Your task to perform on an android device: Open notification settings Image 0: 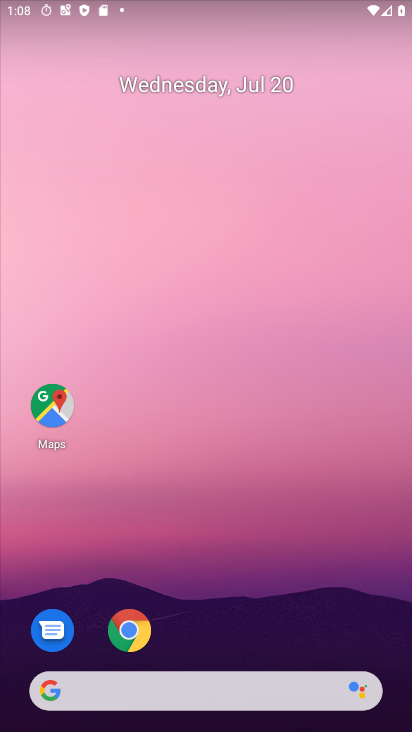
Step 0: drag from (237, 620) to (193, 175)
Your task to perform on an android device: Open notification settings Image 1: 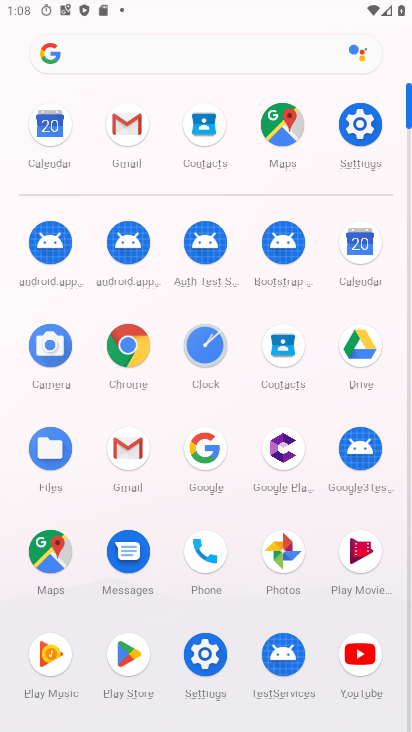
Step 1: click (356, 126)
Your task to perform on an android device: Open notification settings Image 2: 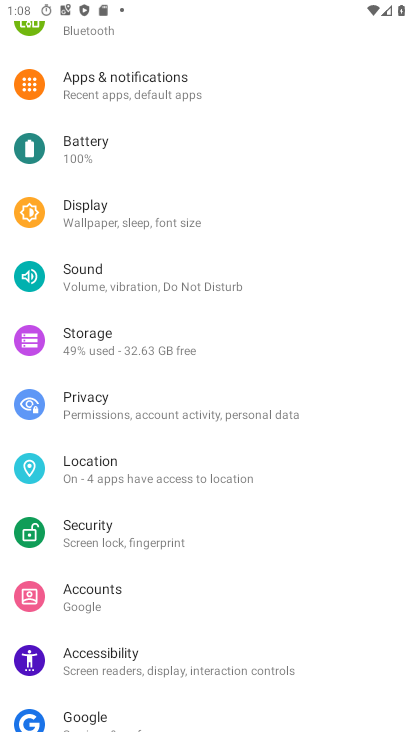
Step 2: click (165, 94)
Your task to perform on an android device: Open notification settings Image 3: 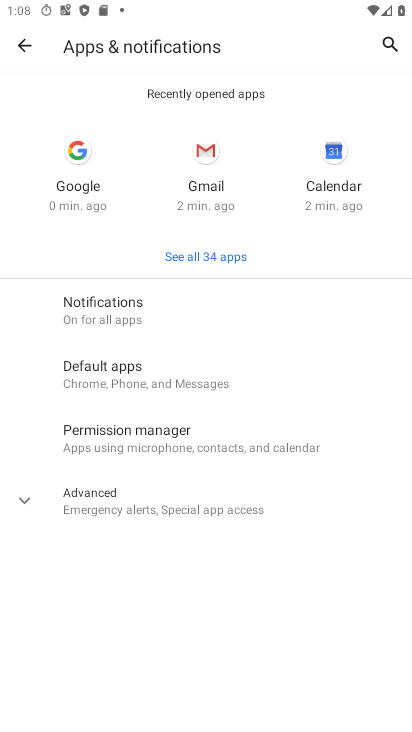
Step 3: task complete